Your task to perform on an android device: Open Google Maps Image 0: 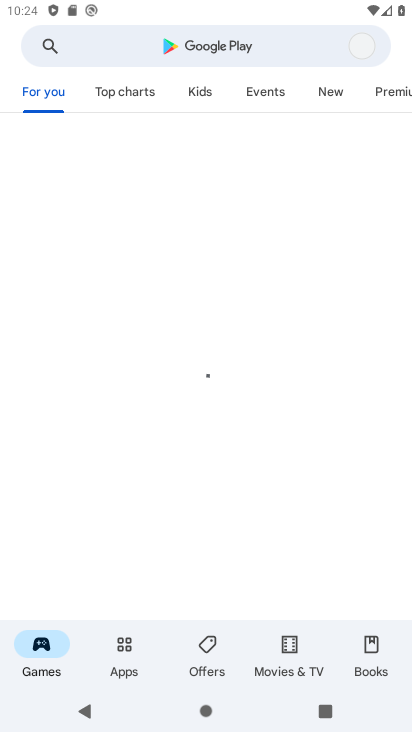
Step 0: press home button
Your task to perform on an android device: Open Google Maps Image 1: 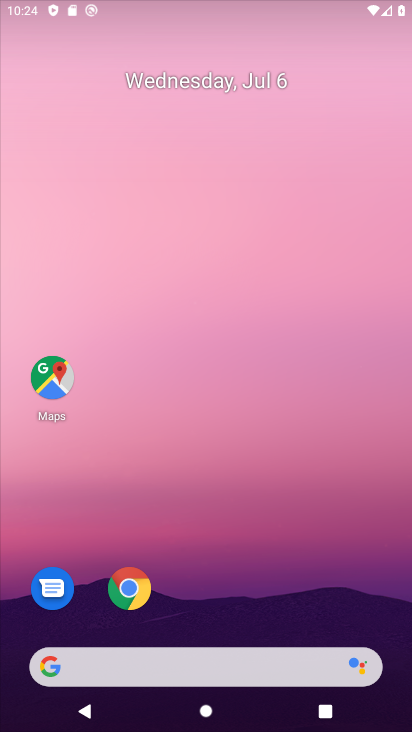
Step 1: click (54, 377)
Your task to perform on an android device: Open Google Maps Image 2: 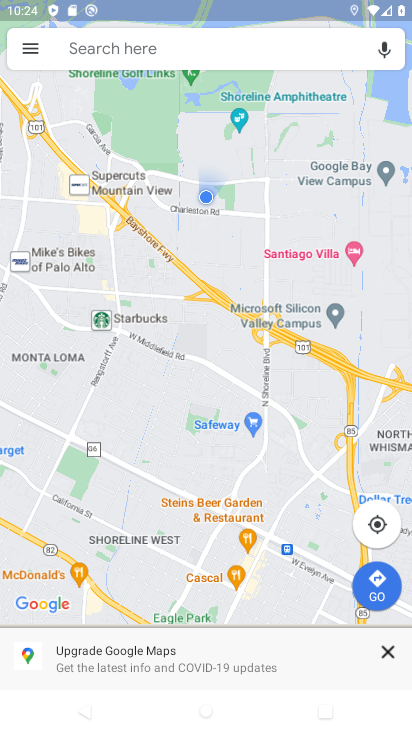
Step 2: task complete